Your task to perform on an android device: Go to Yahoo.com Image 0: 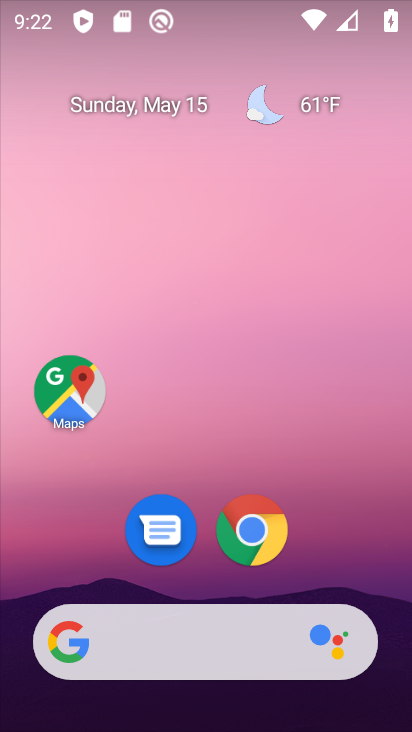
Step 0: click (250, 521)
Your task to perform on an android device: Go to Yahoo.com Image 1: 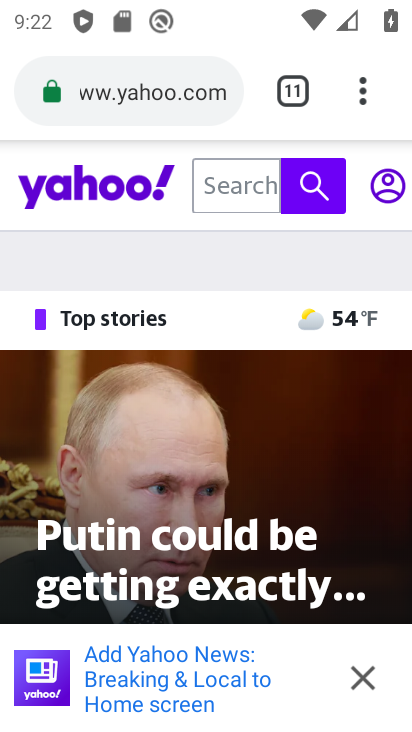
Step 1: task complete